Your task to perform on an android device: Go to calendar. Show me events next week Image 0: 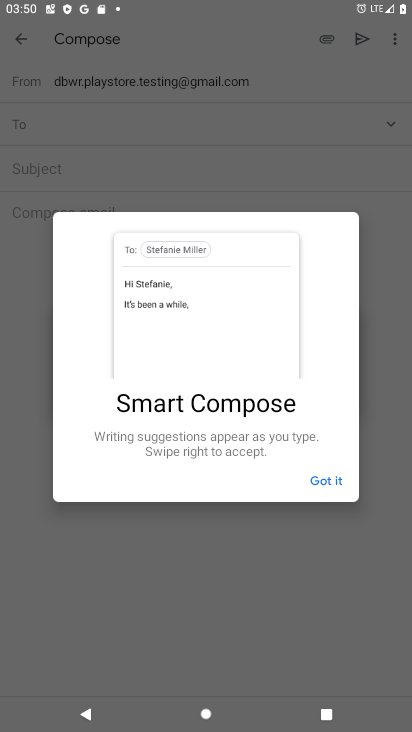
Step 0: press home button
Your task to perform on an android device: Go to calendar. Show me events next week Image 1: 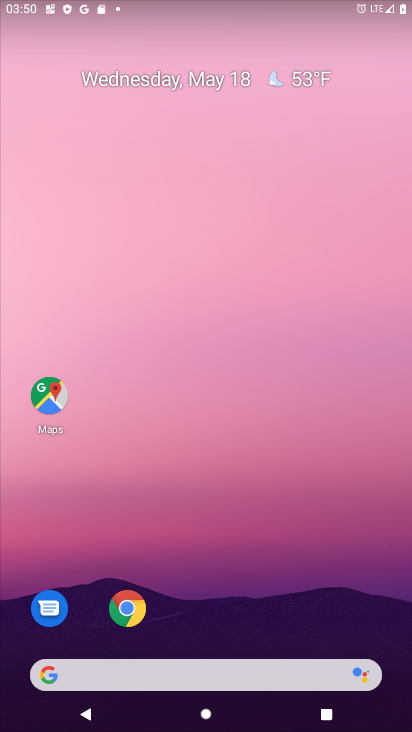
Step 1: drag from (292, 604) to (265, 12)
Your task to perform on an android device: Go to calendar. Show me events next week Image 2: 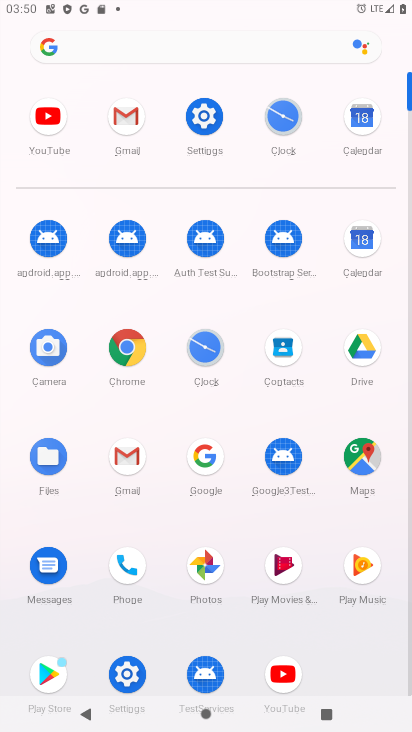
Step 2: click (353, 130)
Your task to perform on an android device: Go to calendar. Show me events next week Image 3: 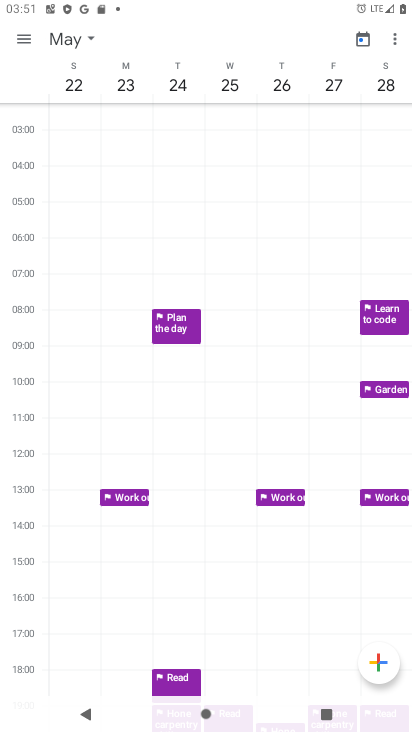
Step 3: task complete